Your task to perform on an android device: Open sound settings Image 0: 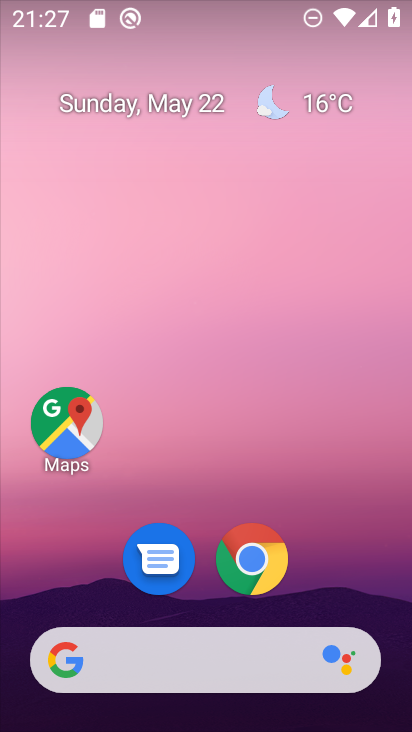
Step 0: drag from (260, 679) to (217, 303)
Your task to perform on an android device: Open sound settings Image 1: 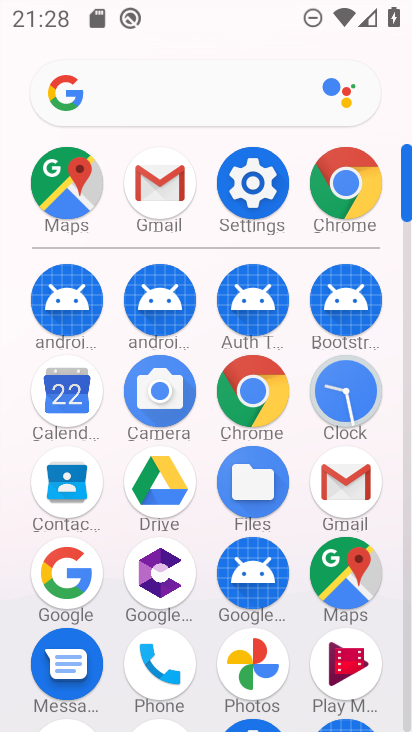
Step 1: click (251, 193)
Your task to perform on an android device: Open sound settings Image 2: 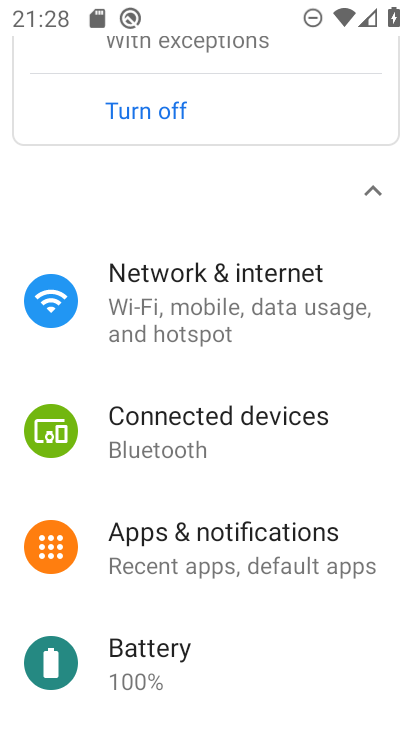
Step 2: drag from (212, 230) to (249, 390)
Your task to perform on an android device: Open sound settings Image 3: 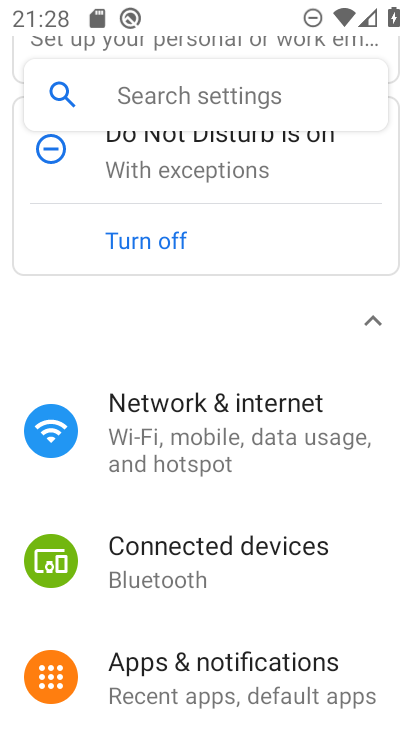
Step 3: click (197, 88)
Your task to perform on an android device: Open sound settings Image 4: 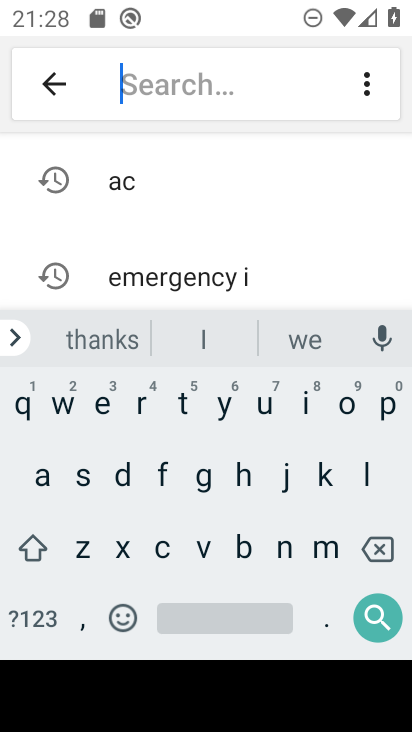
Step 4: click (79, 480)
Your task to perform on an android device: Open sound settings Image 5: 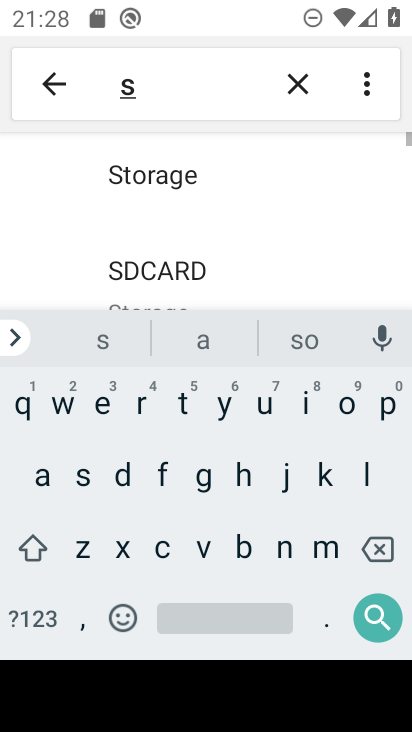
Step 5: click (340, 414)
Your task to perform on an android device: Open sound settings Image 6: 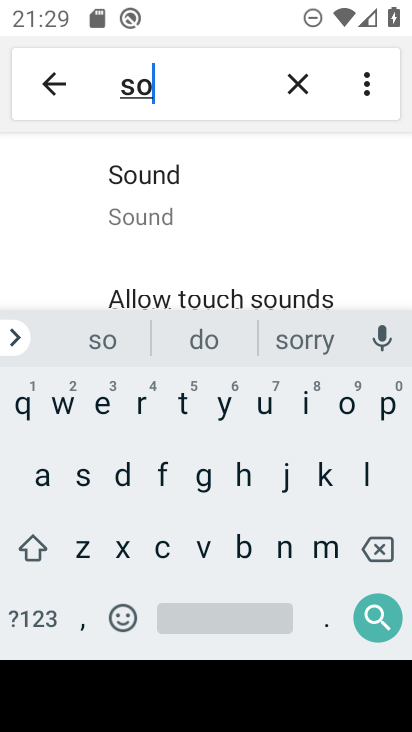
Step 6: click (221, 200)
Your task to perform on an android device: Open sound settings Image 7: 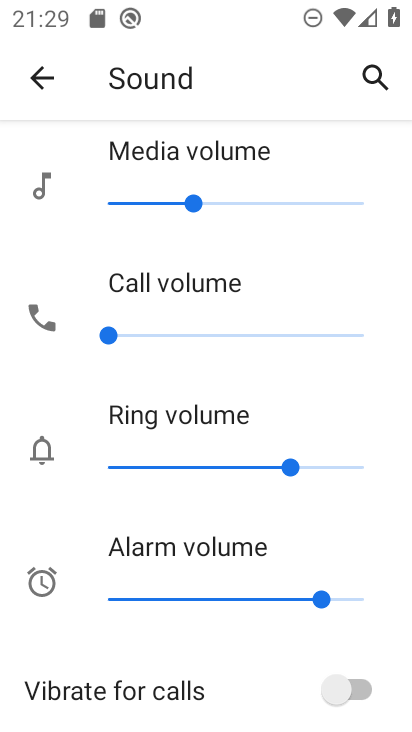
Step 7: task complete